Your task to perform on an android device: toggle data saver in the chrome app Image 0: 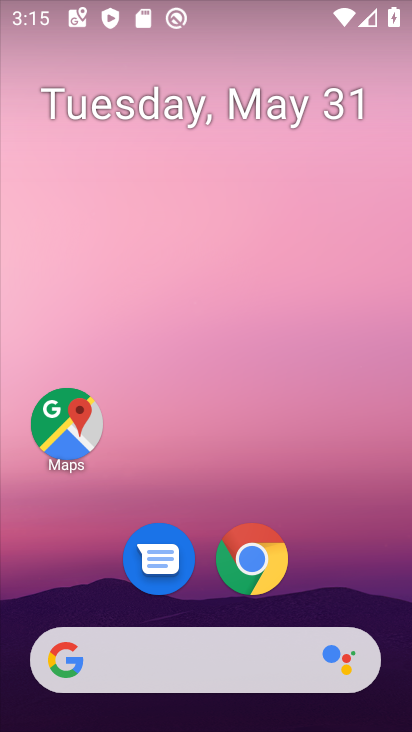
Step 0: click (255, 559)
Your task to perform on an android device: toggle data saver in the chrome app Image 1: 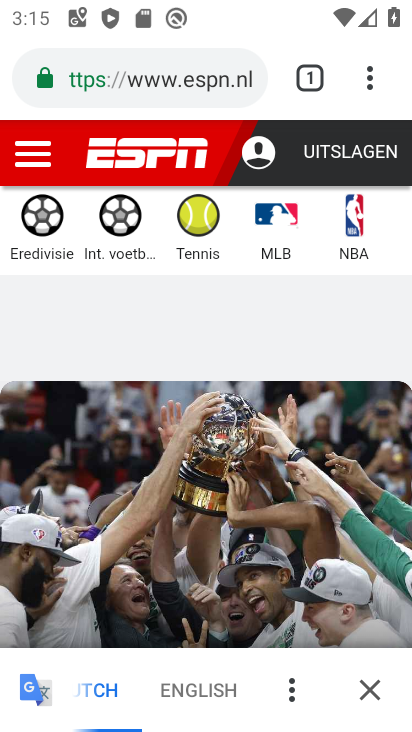
Step 1: click (371, 85)
Your task to perform on an android device: toggle data saver in the chrome app Image 2: 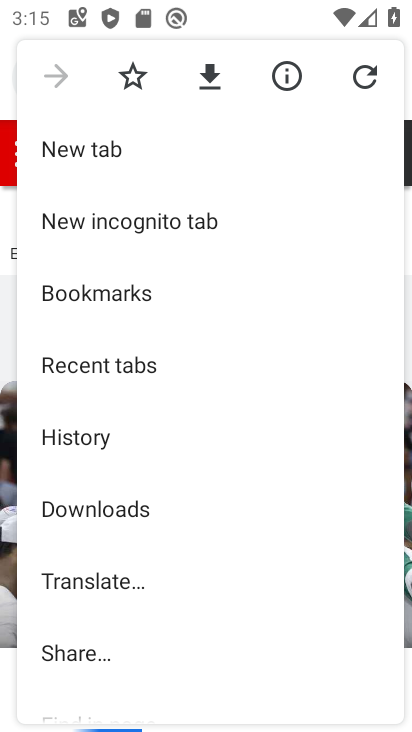
Step 2: drag from (131, 641) to (132, 276)
Your task to perform on an android device: toggle data saver in the chrome app Image 3: 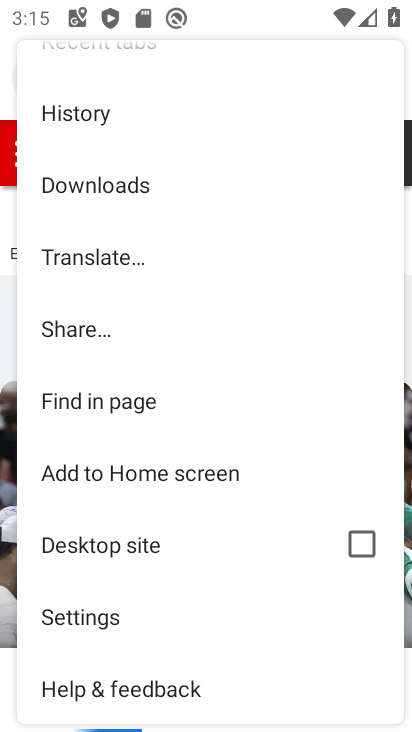
Step 3: click (97, 615)
Your task to perform on an android device: toggle data saver in the chrome app Image 4: 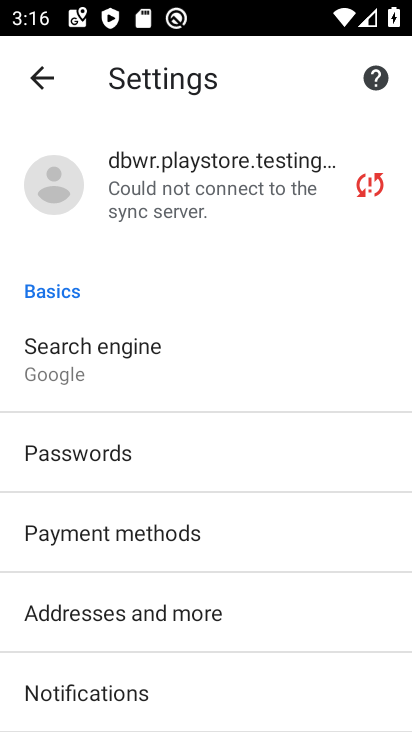
Step 4: drag from (121, 703) to (139, 240)
Your task to perform on an android device: toggle data saver in the chrome app Image 5: 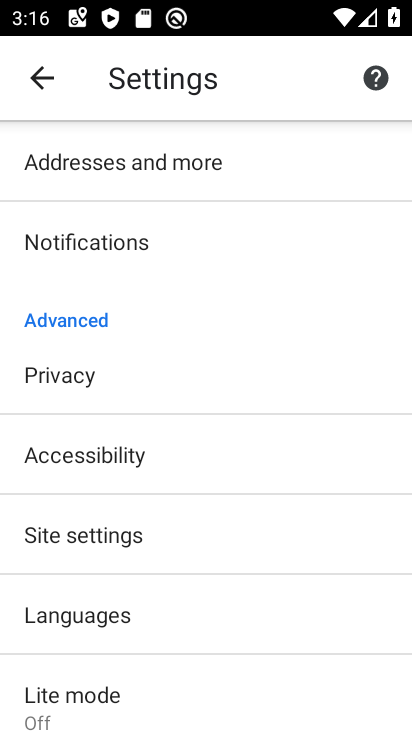
Step 5: click (78, 702)
Your task to perform on an android device: toggle data saver in the chrome app Image 6: 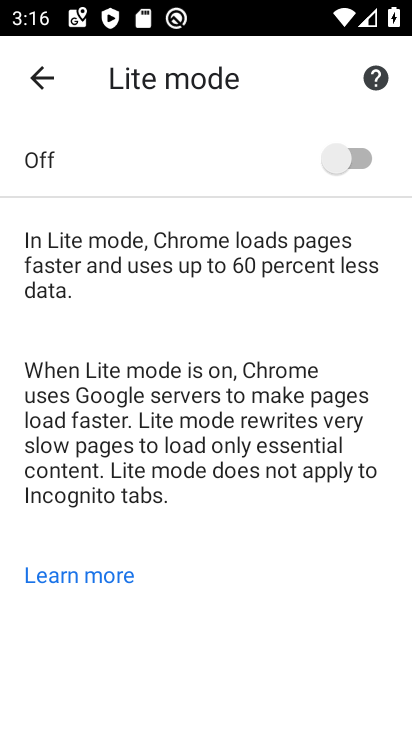
Step 6: click (359, 161)
Your task to perform on an android device: toggle data saver in the chrome app Image 7: 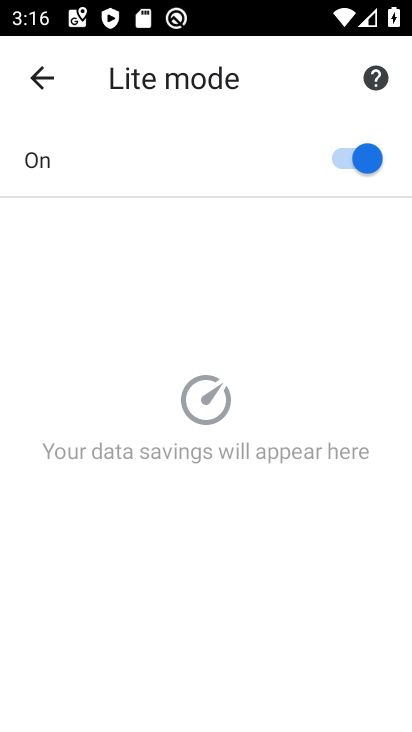
Step 7: click (38, 77)
Your task to perform on an android device: toggle data saver in the chrome app Image 8: 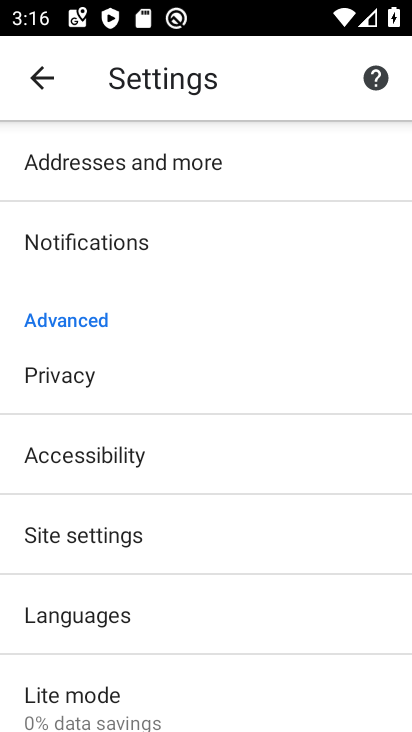
Step 8: task complete